Your task to perform on an android device: turn on the 24-hour format for clock Image 0: 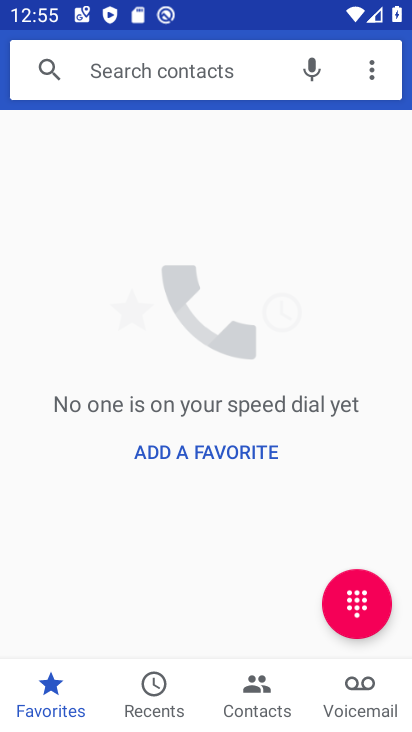
Step 0: press home button
Your task to perform on an android device: turn on the 24-hour format for clock Image 1: 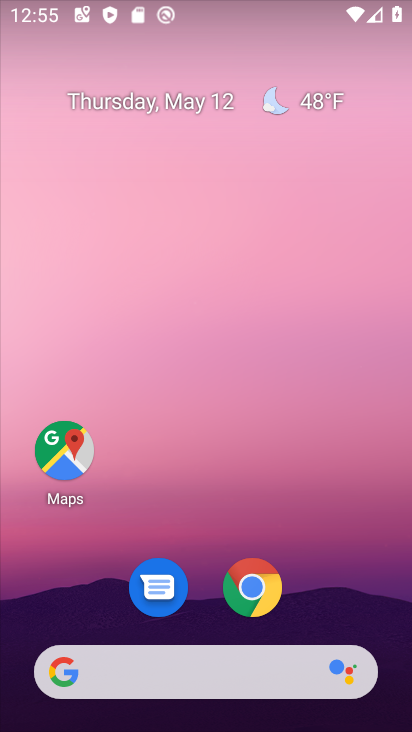
Step 1: drag from (321, 558) to (365, 59)
Your task to perform on an android device: turn on the 24-hour format for clock Image 2: 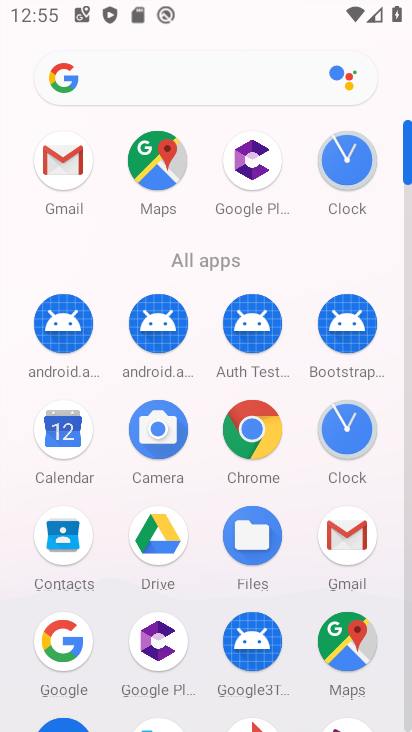
Step 2: click (357, 437)
Your task to perform on an android device: turn on the 24-hour format for clock Image 3: 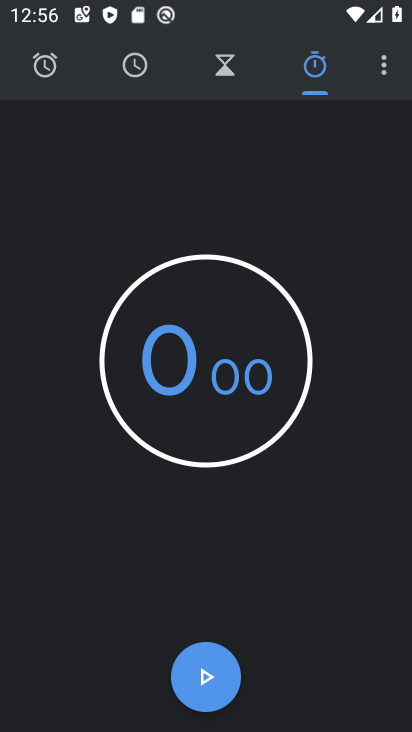
Step 3: click (393, 79)
Your task to perform on an android device: turn on the 24-hour format for clock Image 4: 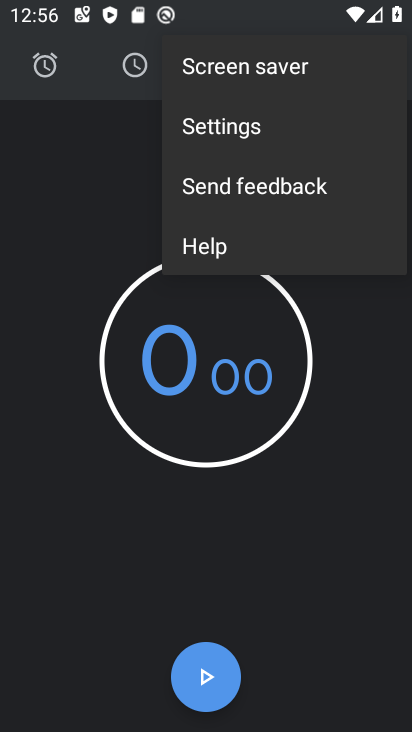
Step 4: click (288, 125)
Your task to perform on an android device: turn on the 24-hour format for clock Image 5: 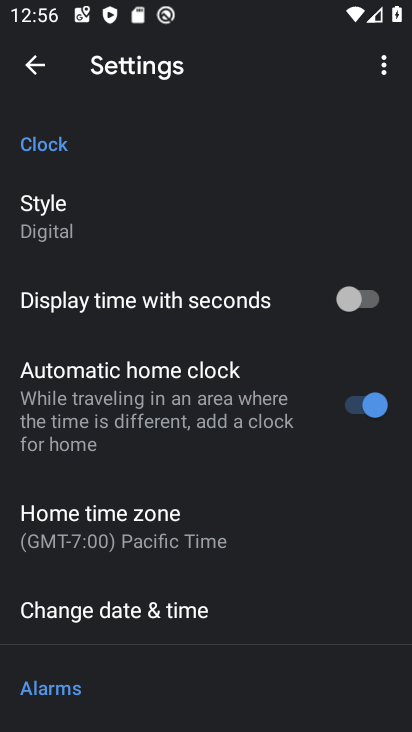
Step 5: drag from (183, 416) to (276, 48)
Your task to perform on an android device: turn on the 24-hour format for clock Image 6: 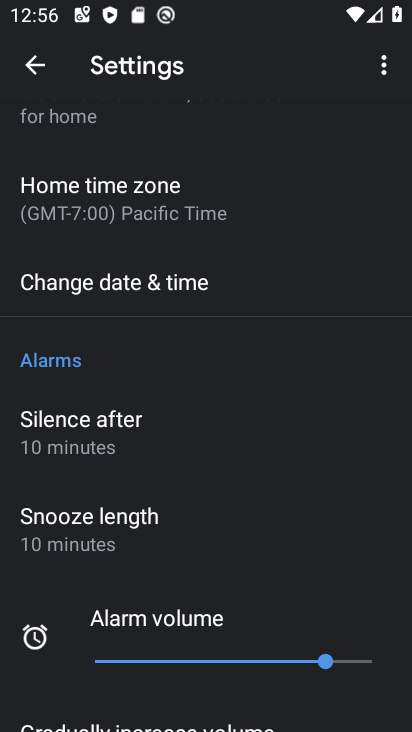
Step 6: click (181, 291)
Your task to perform on an android device: turn on the 24-hour format for clock Image 7: 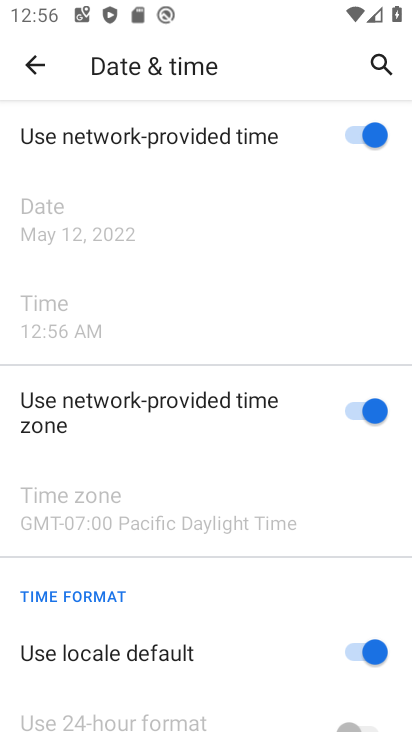
Step 7: task complete